Your task to perform on an android device: turn off data saver in the chrome app Image 0: 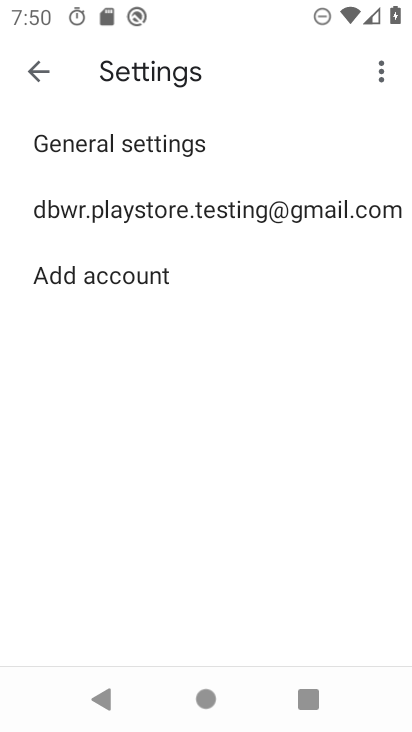
Step 0: press home button
Your task to perform on an android device: turn off data saver in the chrome app Image 1: 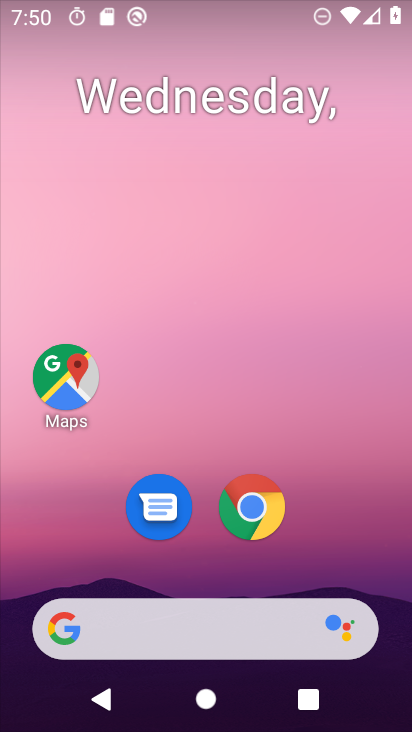
Step 1: drag from (251, 585) to (211, 304)
Your task to perform on an android device: turn off data saver in the chrome app Image 2: 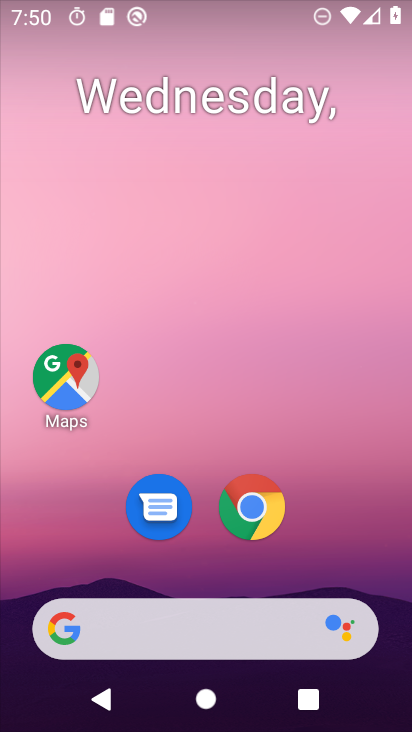
Step 2: drag from (272, 558) to (252, 163)
Your task to perform on an android device: turn off data saver in the chrome app Image 3: 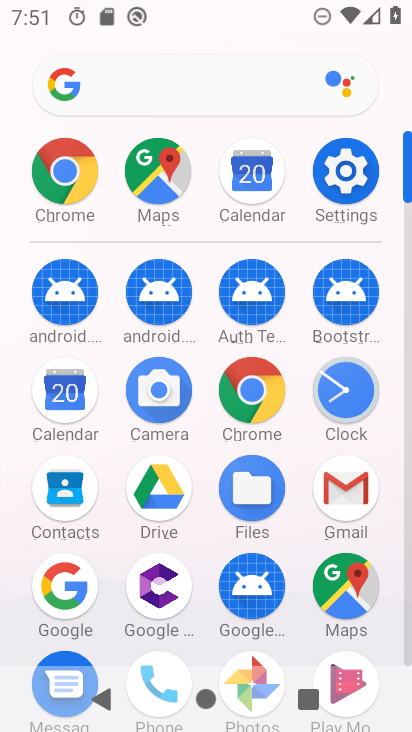
Step 3: click (82, 179)
Your task to perform on an android device: turn off data saver in the chrome app Image 4: 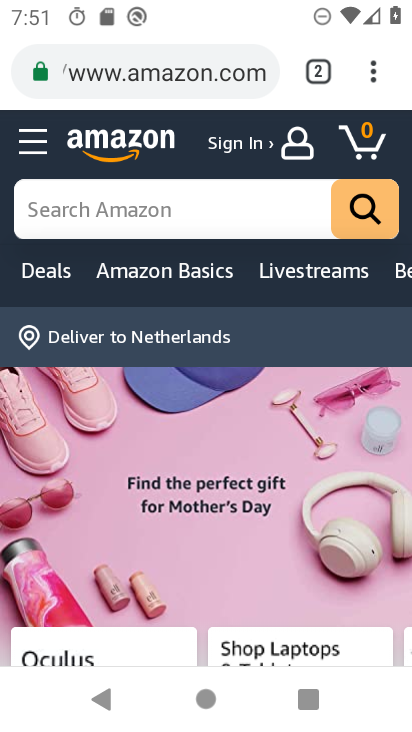
Step 4: click (365, 86)
Your task to perform on an android device: turn off data saver in the chrome app Image 5: 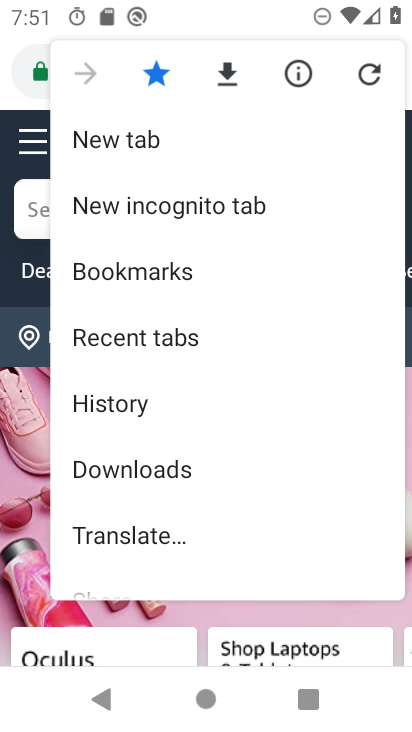
Step 5: drag from (144, 420) to (247, 92)
Your task to perform on an android device: turn off data saver in the chrome app Image 6: 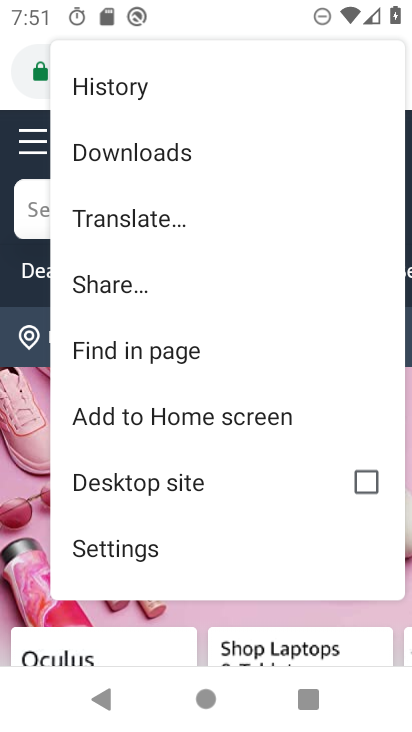
Step 6: click (128, 539)
Your task to perform on an android device: turn off data saver in the chrome app Image 7: 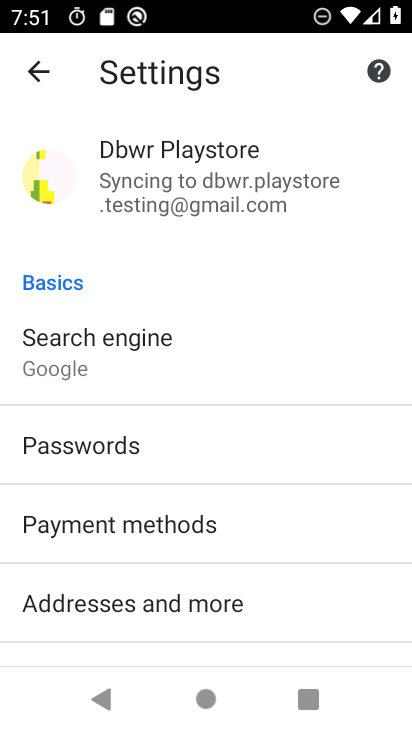
Step 7: drag from (112, 570) to (193, 315)
Your task to perform on an android device: turn off data saver in the chrome app Image 8: 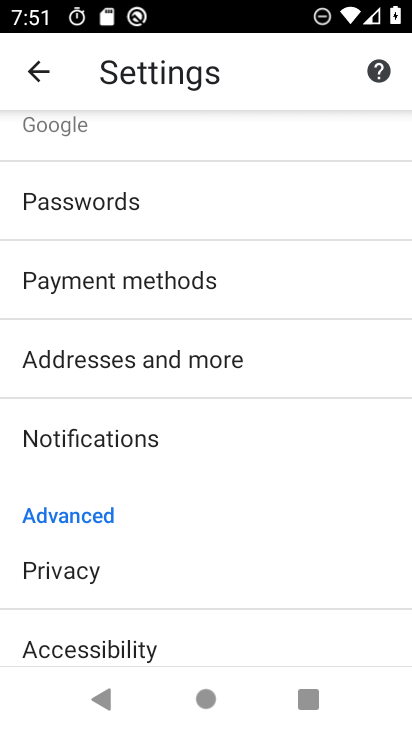
Step 8: drag from (142, 529) to (229, 253)
Your task to perform on an android device: turn off data saver in the chrome app Image 9: 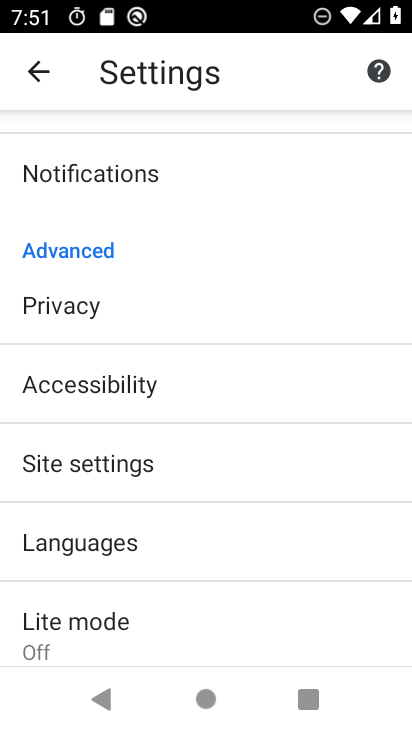
Step 9: drag from (169, 531) to (239, 362)
Your task to perform on an android device: turn off data saver in the chrome app Image 10: 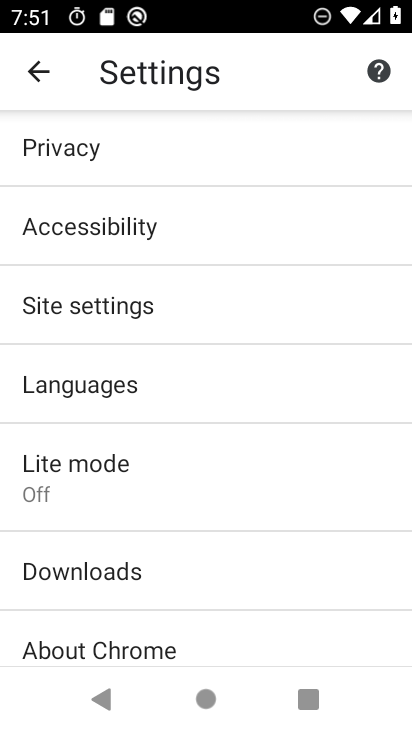
Step 10: click (74, 502)
Your task to perform on an android device: turn off data saver in the chrome app Image 11: 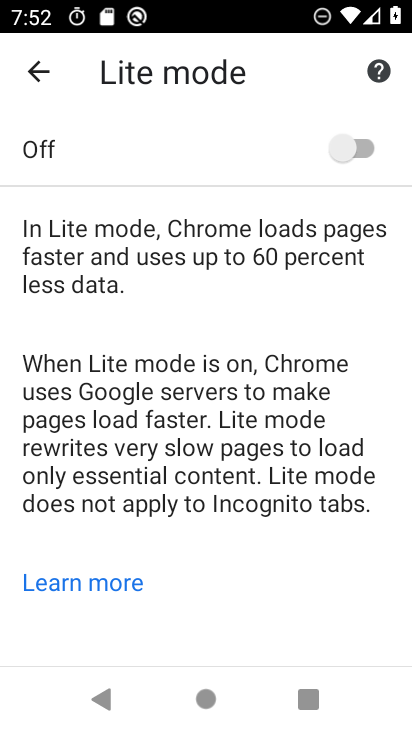
Step 11: click (323, 147)
Your task to perform on an android device: turn off data saver in the chrome app Image 12: 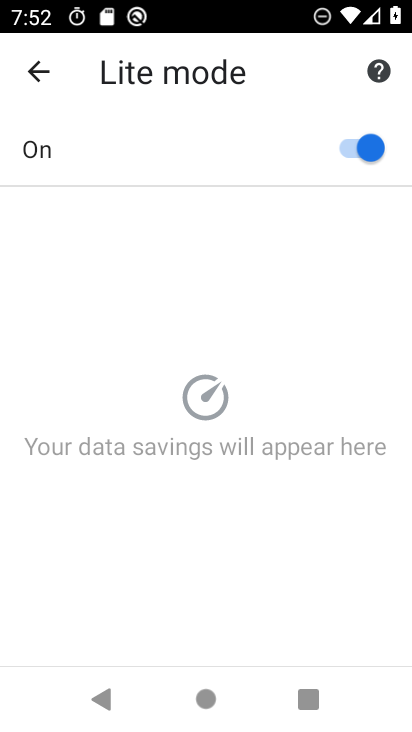
Step 12: click (350, 143)
Your task to perform on an android device: turn off data saver in the chrome app Image 13: 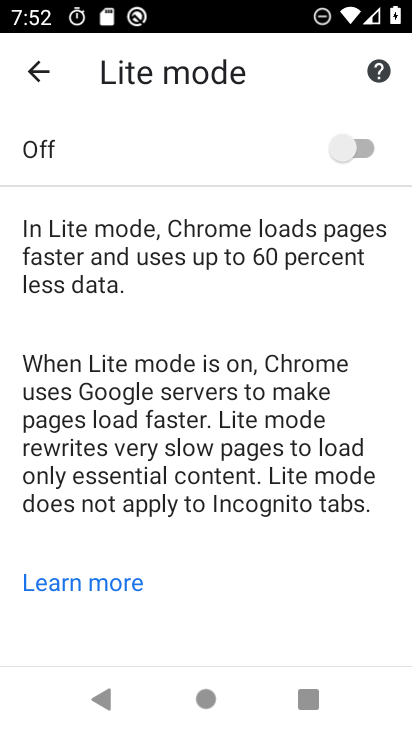
Step 13: task complete